Your task to perform on an android device: turn on translation in the chrome app Image 0: 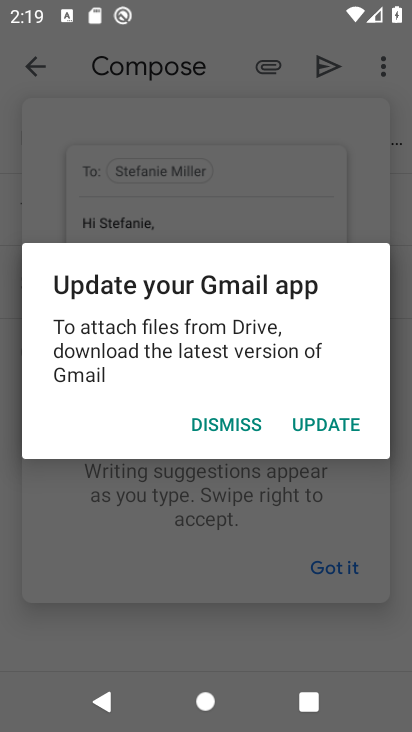
Step 0: press home button
Your task to perform on an android device: turn on translation in the chrome app Image 1: 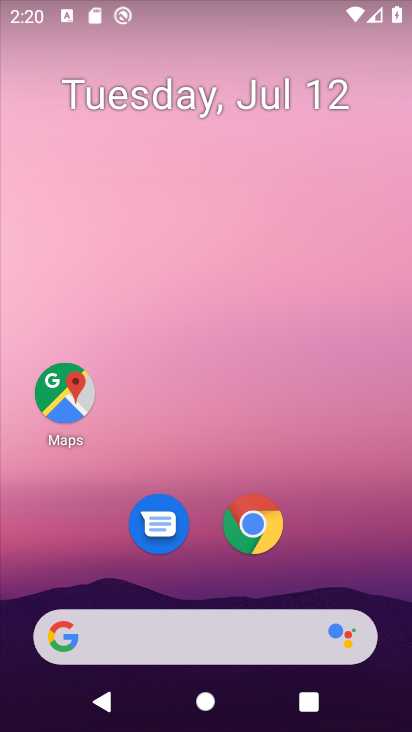
Step 1: click (266, 517)
Your task to perform on an android device: turn on translation in the chrome app Image 2: 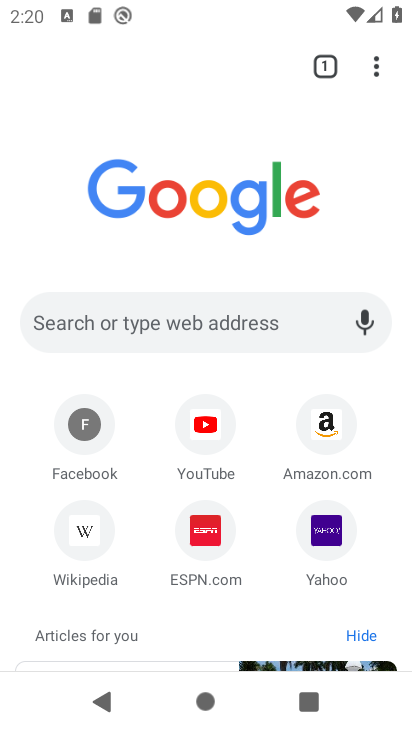
Step 2: click (379, 67)
Your task to perform on an android device: turn on translation in the chrome app Image 3: 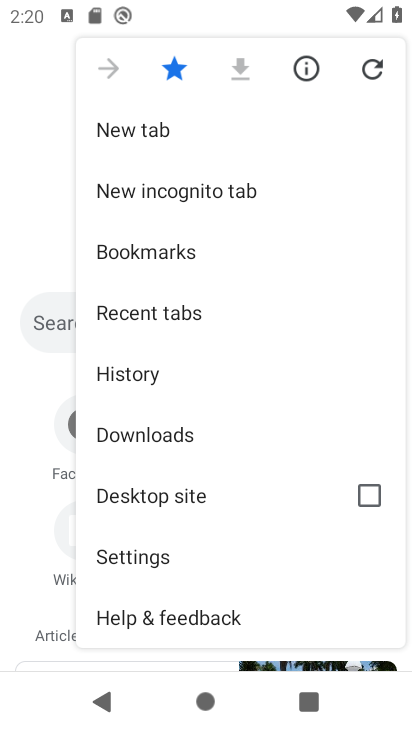
Step 3: click (151, 553)
Your task to perform on an android device: turn on translation in the chrome app Image 4: 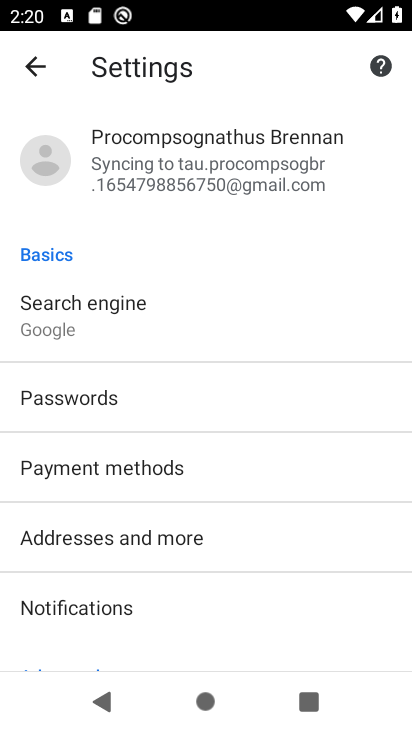
Step 4: click (137, 608)
Your task to perform on an android device: turn on translation in the chrome app Image 5: 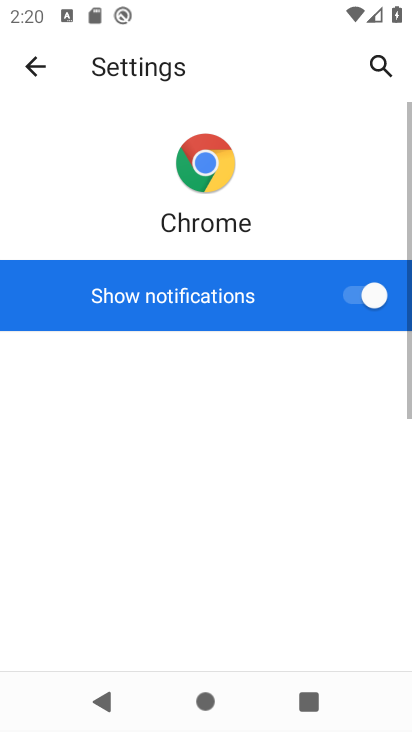
Step 5: task complete